Your task to perform on an android device: stop showing notifications on the lock screen Image 0: 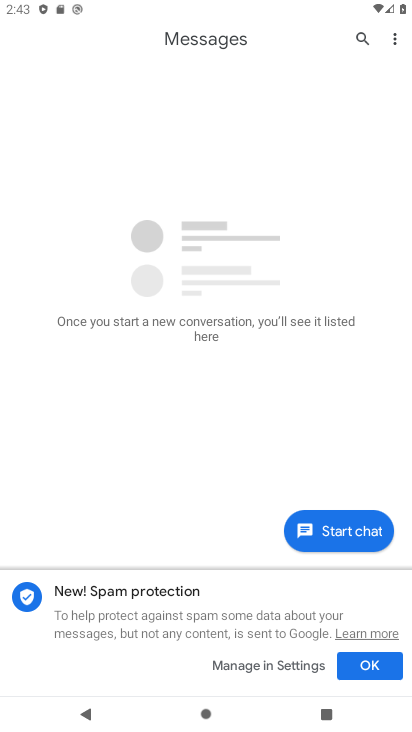
Step 0: press home button
Your task to perform on an android device: stop showing notifications on the lock screen Image 1: 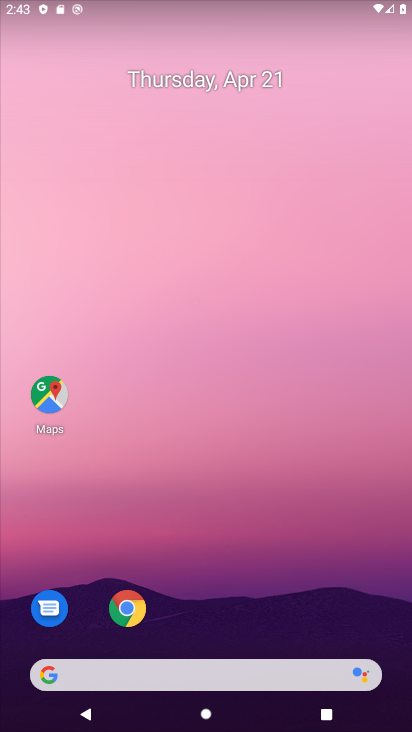
Step 1: drag from (280, 608) to (292, 65)
Your task to perform on an android device: stop showing notifications on the lock screen Image 2: 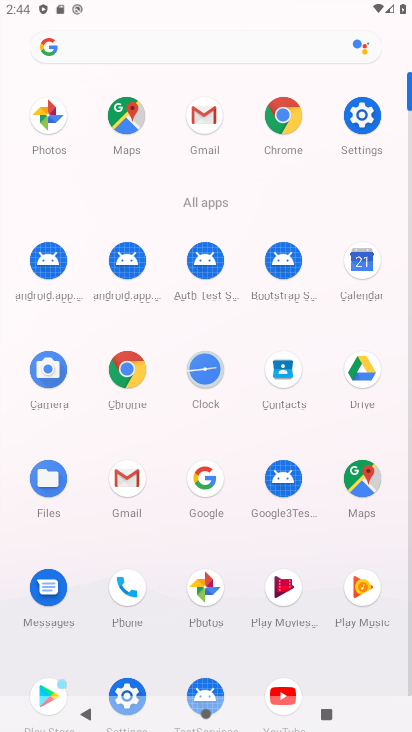
Step 2: click (355, 120)
Your task to perform on an android device: stop showing notifications on the lock screen Image 3: 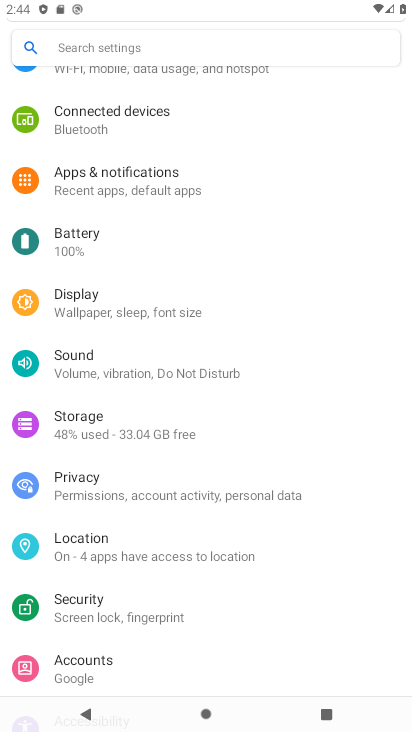
Step 3: drag from (114, 509) to (132, 596)
Your task to perform on an android device: stop showing notifications on the lock screen Image 4: 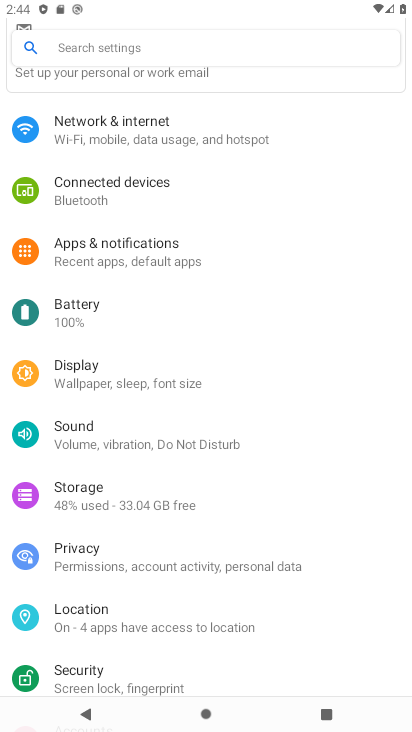
Step 4: click (146, 253)
Your task to perform on an android device: stop showing notifications on the lock screen Image 5: 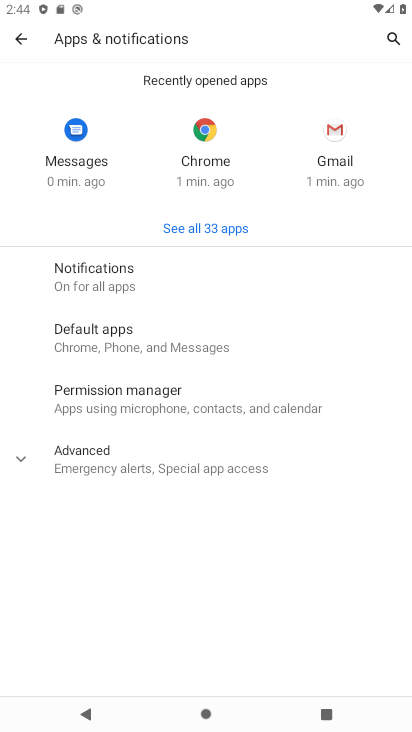
Step 5: click (136, 264)
Your task to perform on an android device: stop showing notifications on the lock screen Image 6: 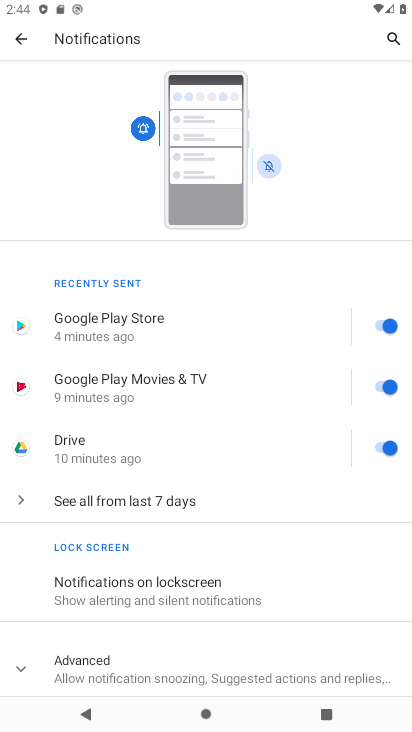
Step 6: drag from (148, 641) to (148, 533)
Your task to perform on an android device: stop showing notifications on the lock screen Image 7: 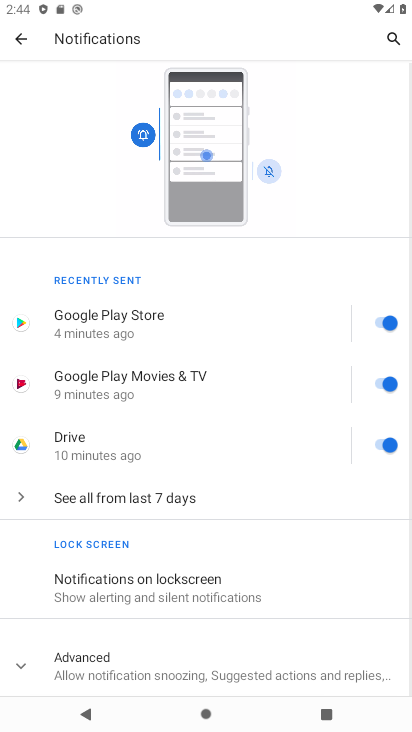
Step 7: click (124, 594)
Your task to perform on an android device: stop showing notifications on the lock screen Image 8: 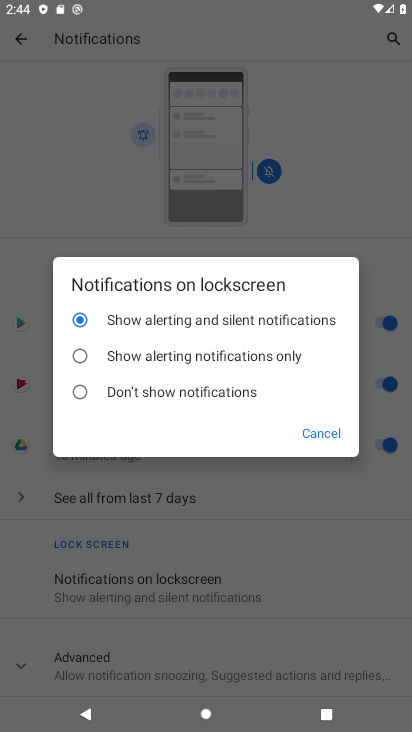
Step 8: click (118, 400)
Your task to perform on an android device: stop showing notifications on the lock screen Image 9: 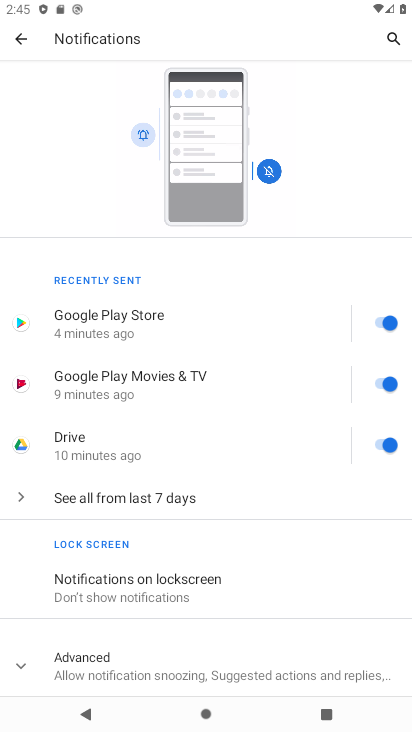
Step 9: task complete